Your task to perform on an android device: Search for vegetarian restaurants on Maps Image 0: 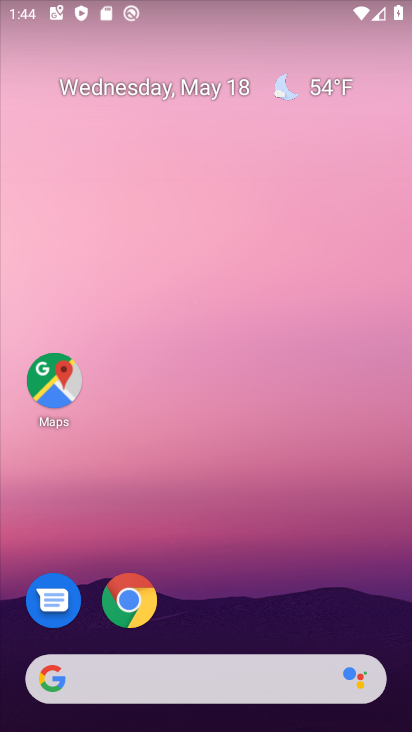
Step 0: click (63, 372)
Your task to perform on an android device: Search for vegetarian restaurants on Maps Image 1: 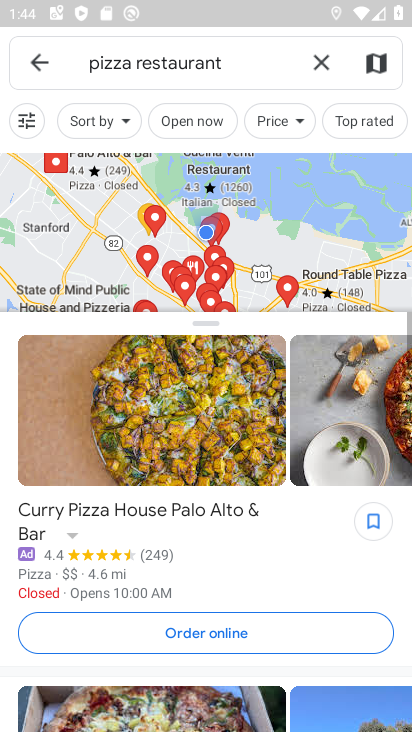
Step 1: click (319, 65)
Your task to perform on an android device: Search for vegetarian restaurants on Maps Image 2: 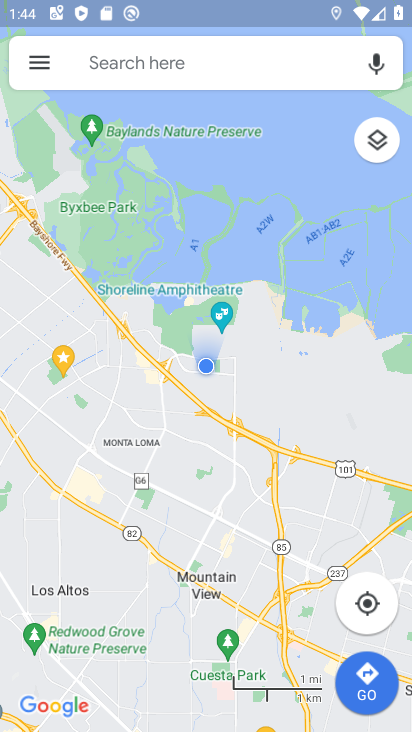
Step 2: click (242, 73)
Your task to perform on an android device: Search for vegetarian restaurants on Maps Image 3: 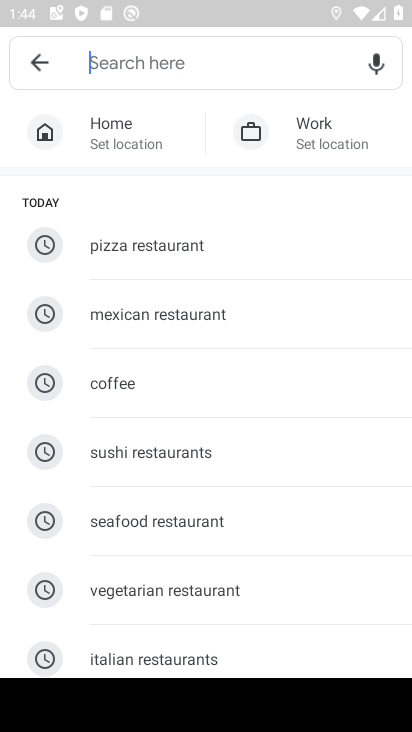
Step 3: click (184, 593)
Your task to perform on an android device: Search for vegetarian restaurants on Maps Image 4: 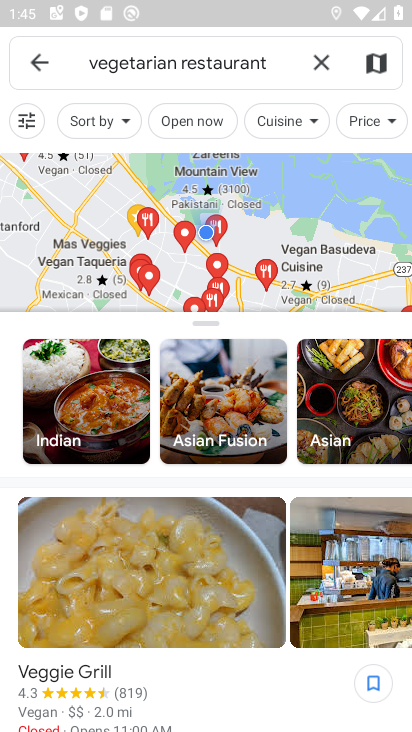
Step 4: task complete